Your task to perform on an android device: Open the web browser Image 0: 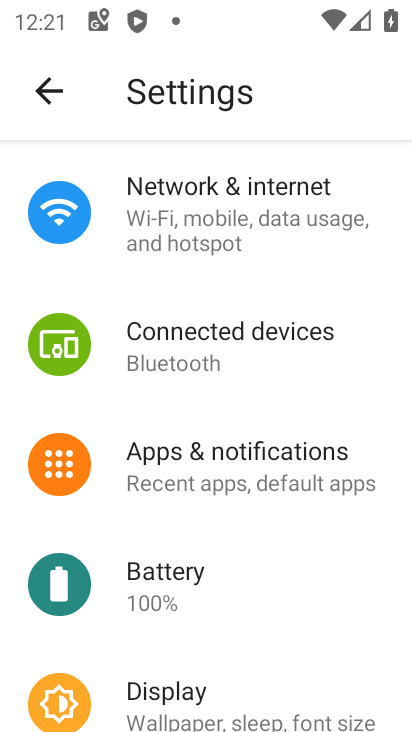
Step 0: press home button
Your task to perform on an android device: Open the web browser Image 1: 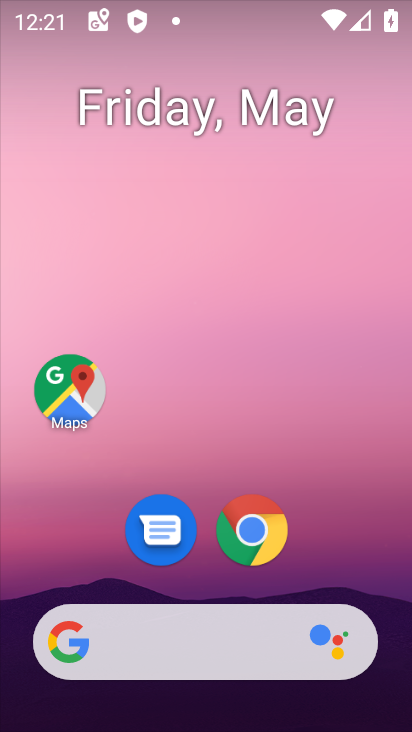
Step 1: click (249, 527)
Your task to perform on an android device: Open the web browser Image 2: 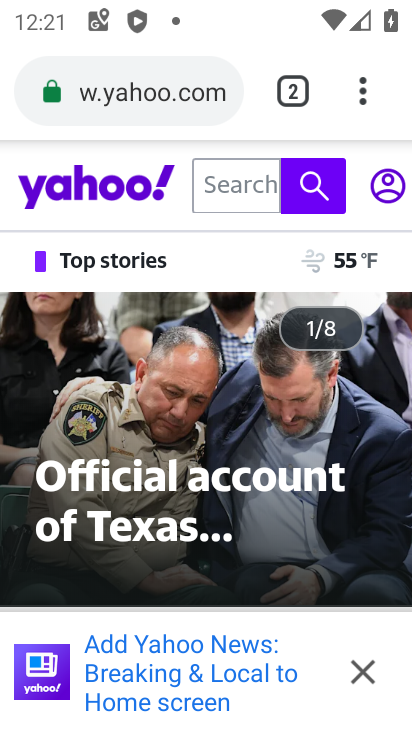
Step 2: task complete